Your task to perform on an android device: open a bookmark in the chrome app Image 0: 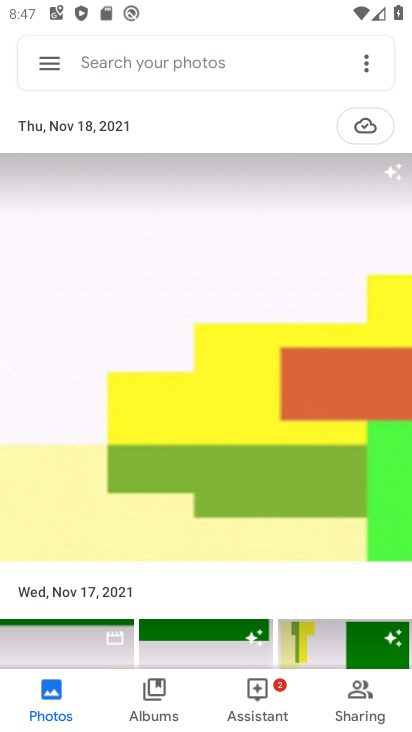
Step 0: press back button
Your task to perform on an android device: open a bookmark in the chrome app Image 1: 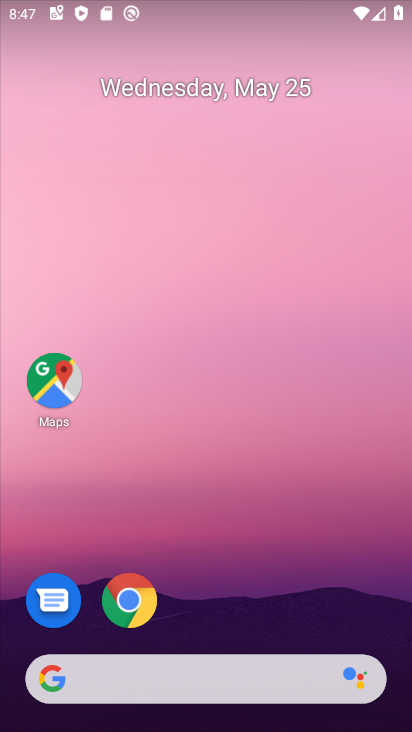
Step 1: drag from (213, 629) to (225, 55)
Your task to perform on an android device: open a bookmark in the chrome app Image 2: 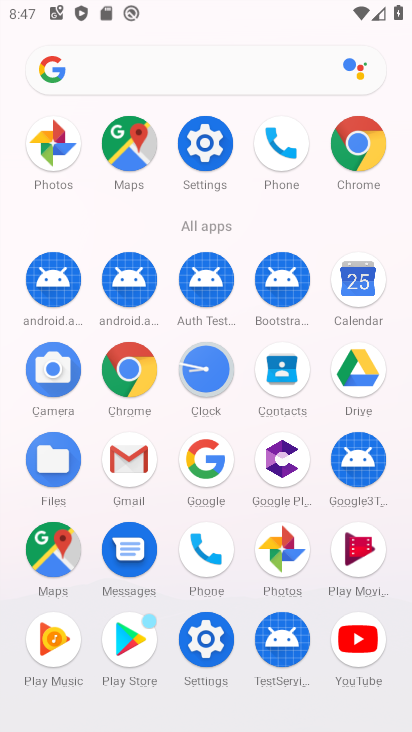
Step 2: drag from (22, 589) to (19, 235)
Your task to perform on an android device: open a bookmark in the chrome app Image 3: 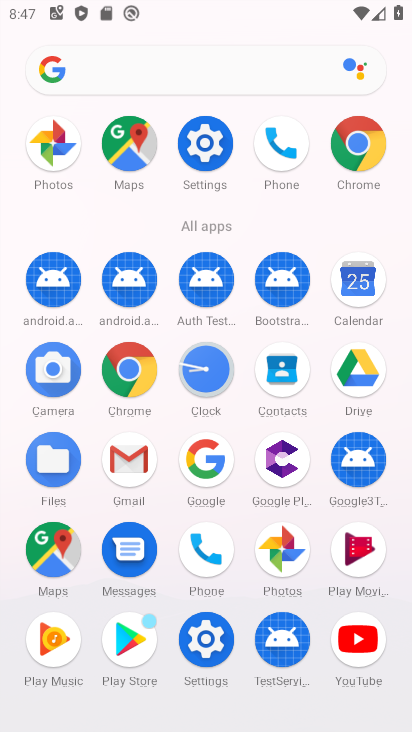
Step 3: click (130, 367)
Your task to perform on an android device: open a bookmark in the chrome app Image 4: 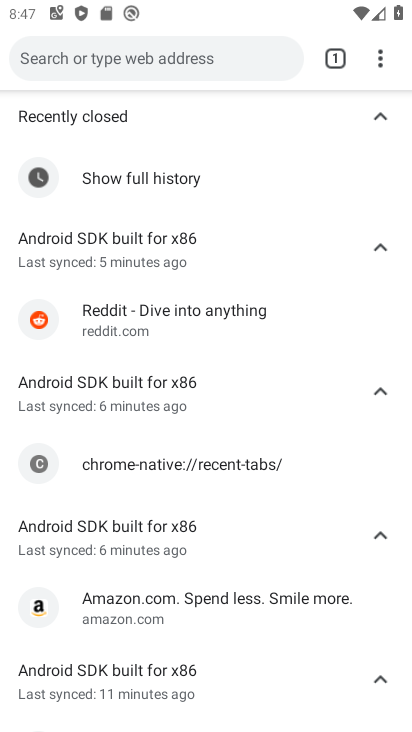
Step 4: drag from (377, 61) to (207, 280)
Your task to perform on an android device: open a bookmark in the chrome app Image 5: 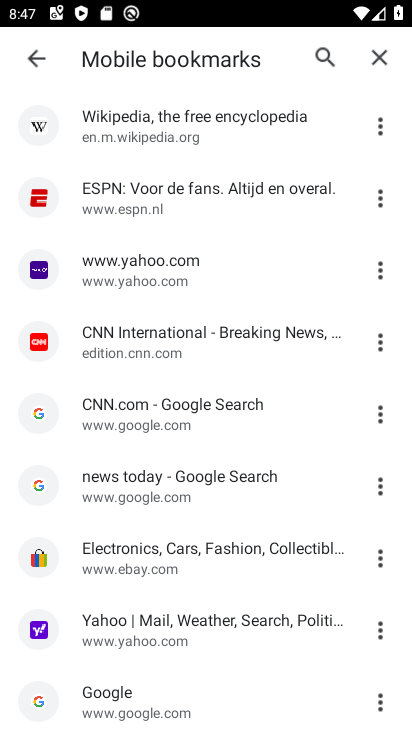
Step 5: click (154, 344)
Your task to perform on an android device: open a bookmark in the chrome app Image 6: 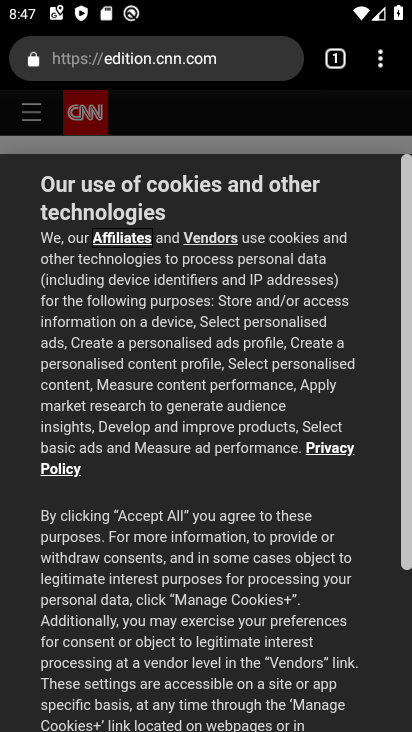
Step 6: task complete